Your task to perform on an android device: move a message to another label in the gmail app Image 0: 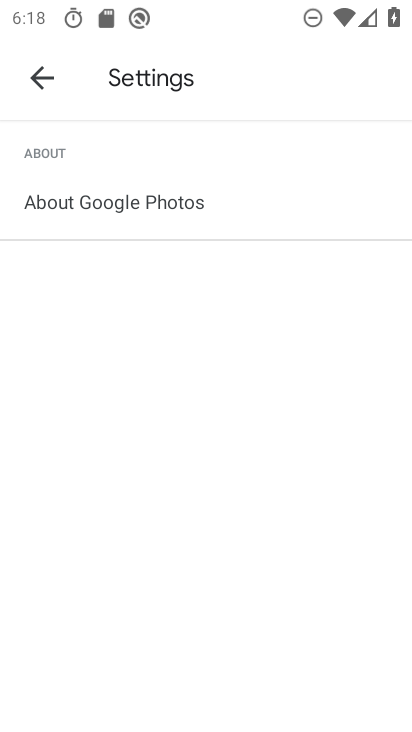
Step 0: press back button
Your task to perform on an android device: move a message to another label in the gmail app Image 1: 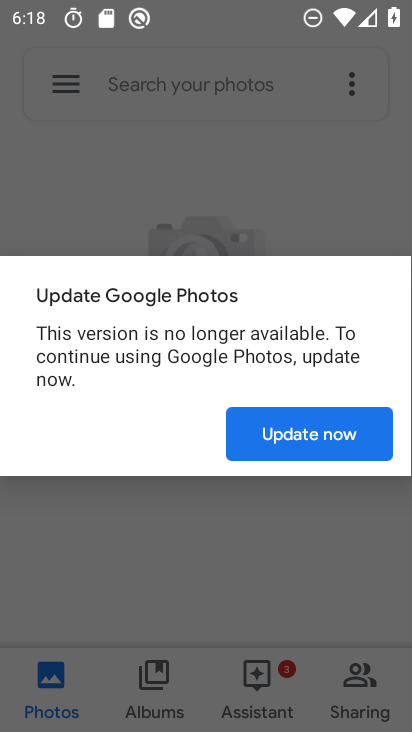
Step 1: press back button
Your task to perform on an android device: move a message to another label in the gmail app Image 2: 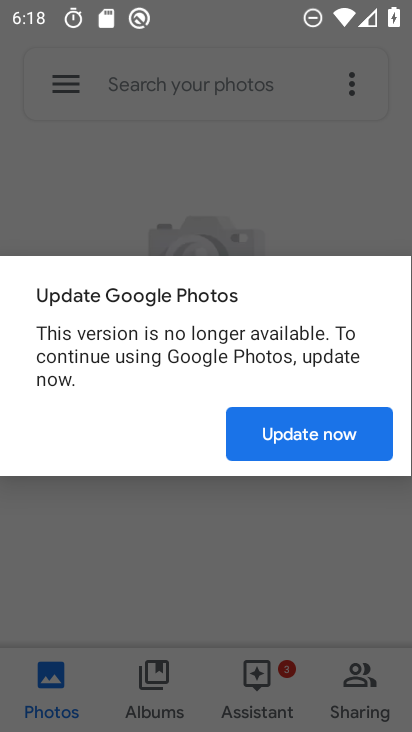
Step 2: press home button
Your task to perform on an android device: move a message to another label in the gmail app Image 3: 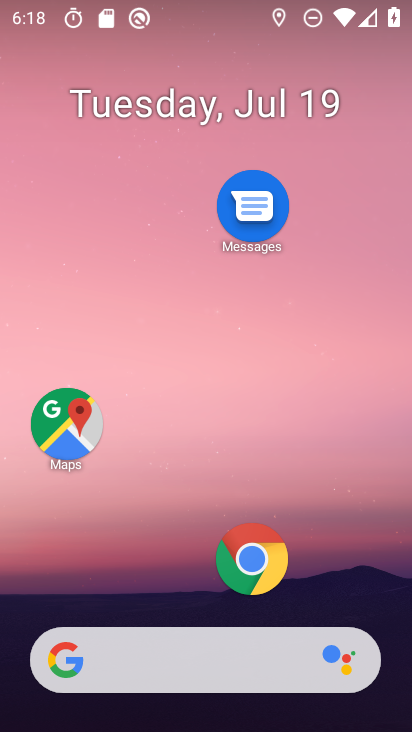
Step 3: drag from (157, 610) to (236, 4)
Your task to perform on an android device: move a message to another label in the gmail app Image 4: 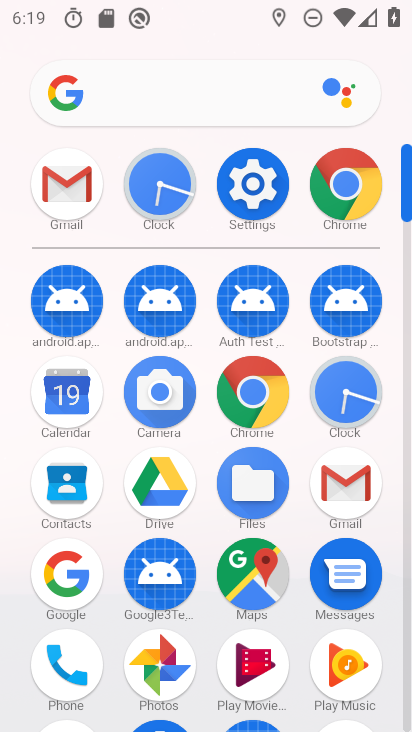
Step 4: click (62, 191)
Your task to perform on an android device: move a message to another label in the gmail app Image 5: 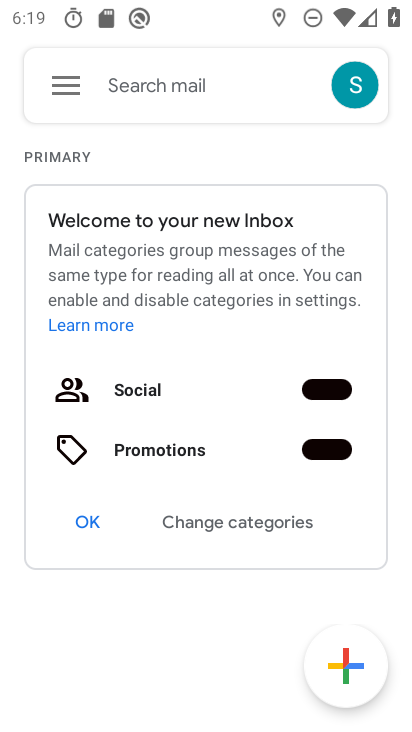
Step 5: click (59, 94)
Your task to perform on an android device: move a message to another label in the gmail app Image 6: 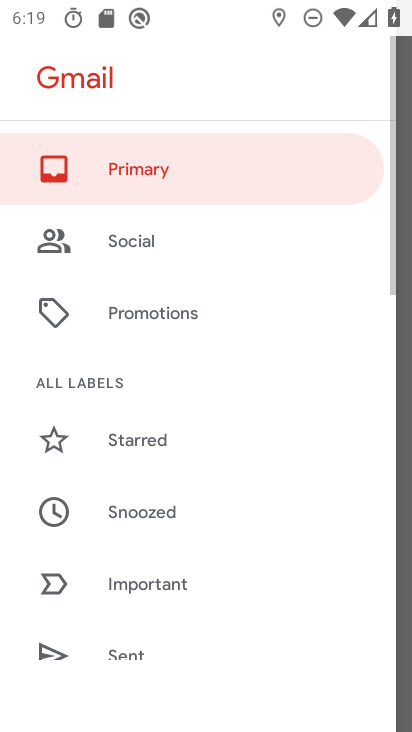
Step 6: drag from (184, 611) to (197, 73)
Your task to perform on an android device: move a message to another label in the gmail app Image 7: 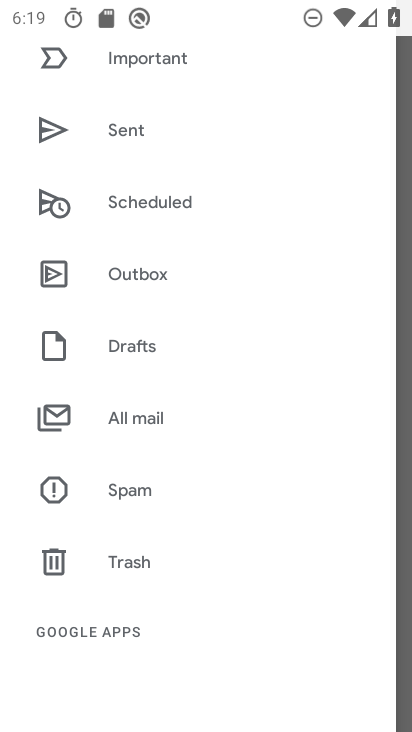
Step 7: click (149, 395)
Your task to perform on an android device: move a message to another label in the gmail app Image 8: 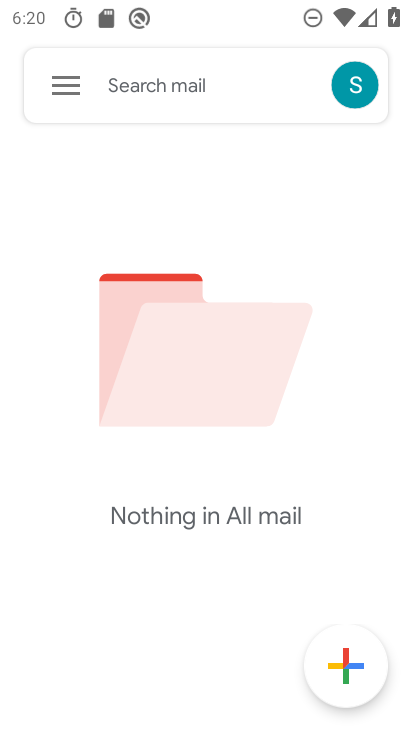
Step 8: task complete